Your task to perform on an android device: turn off data saver in the chrome app Image 0: 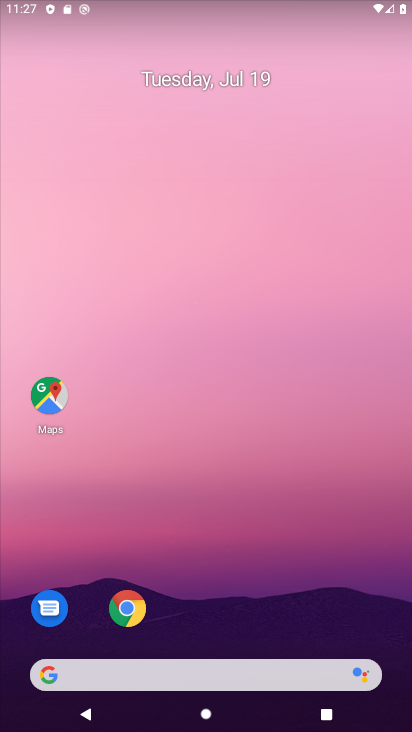
Step 0: press home button
Your task to perform on an android device: turn off data saver in the chrome app Image 1: 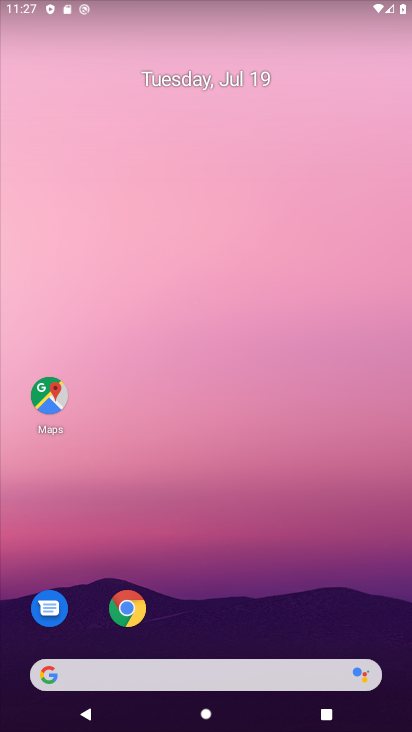
Step 1: click (121, 602)
Your task to perform on an android device: turn off data saver in the chrome app Image 2: 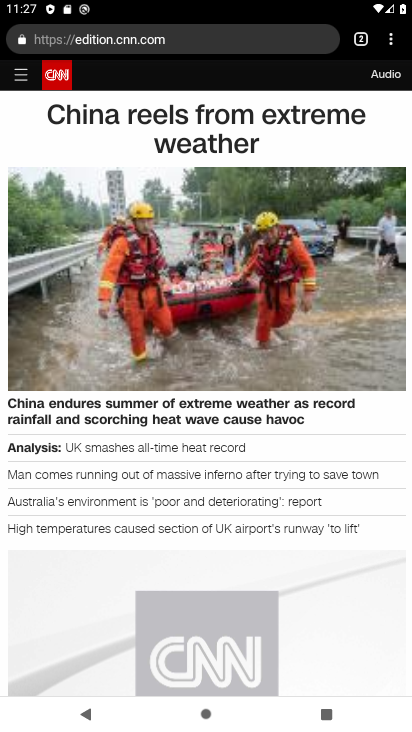
Step 2: drag from (385, 34) to (270, 475)
Your task to perform on an android device: turn off data saver in the chrome app Image 3: 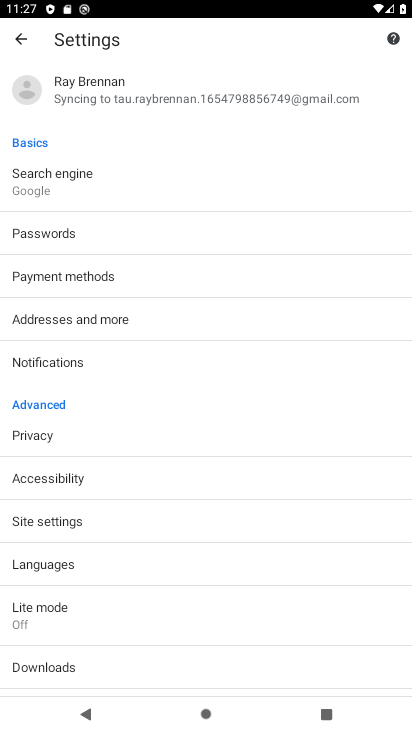
Step 3: click (105, 624)
Your task to perform on an android device: turn off data saver in the chrome app Image 4: 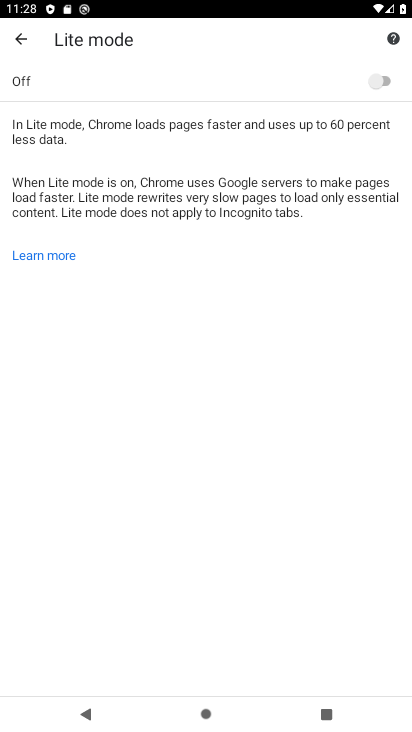
Step 4: task complete